Your task to perform on an android device: move a message to another label in the gmail app Image 0: 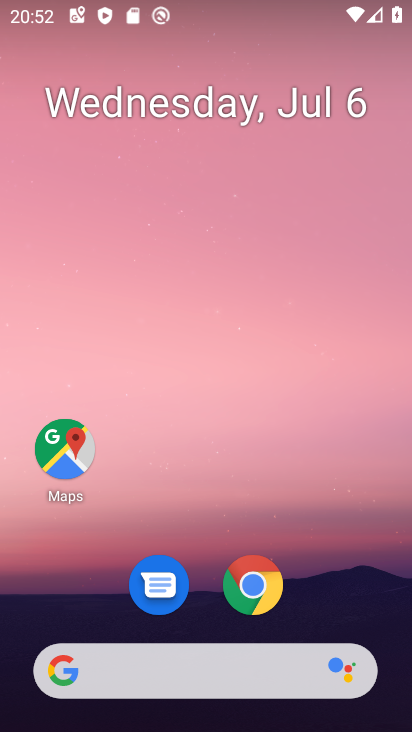
Step 0: drag from (219, 503) to (219, 1)
Your task to perform on an android device: move a message to another label in the gmail app Image 1: 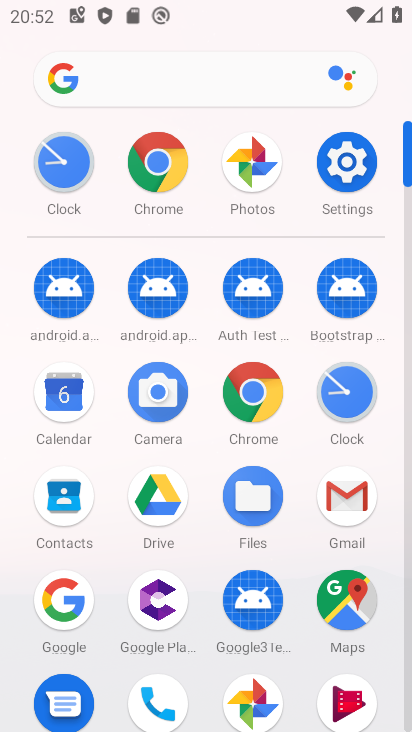
Step 1: click (349, 493)
Your task to perform on an android device: move a message to another label in the gmail app Image 2: 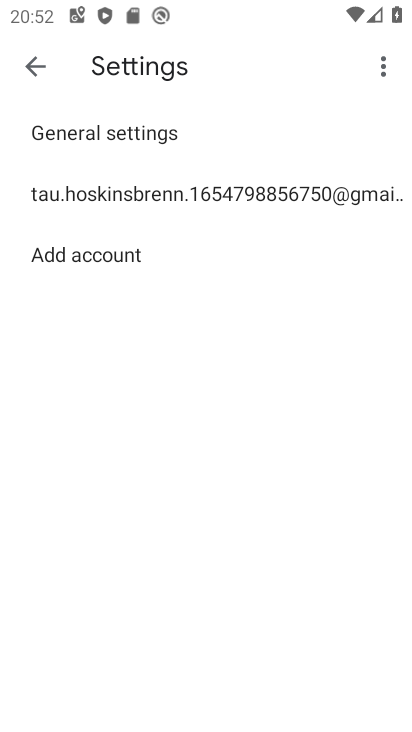
Step 2: click (33, 58)
Your task to perform on an android device: move a message to another label in the gmail app Image 3: 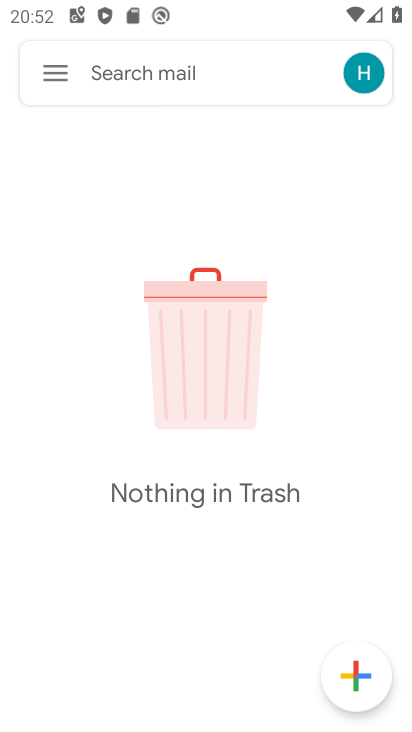
Step 3: click (51, 70)
Your task to perform on an android device: move a message to another label in the gmail app Image 4: 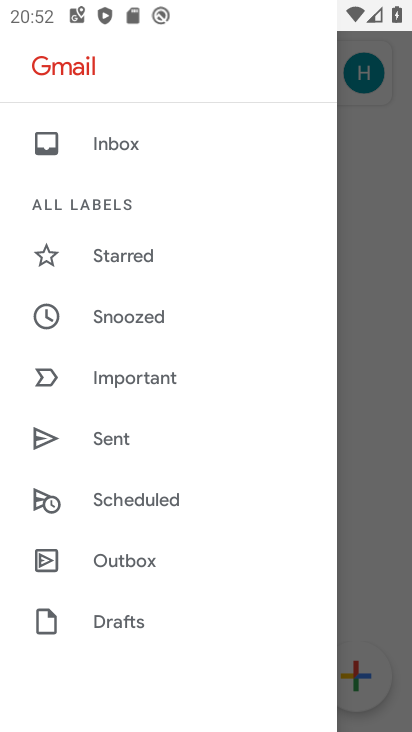
Step 4: drag from (159, 275) to (192, 483)
Your task to perform on an android device: move a message to another label in the gmail app Image 5: 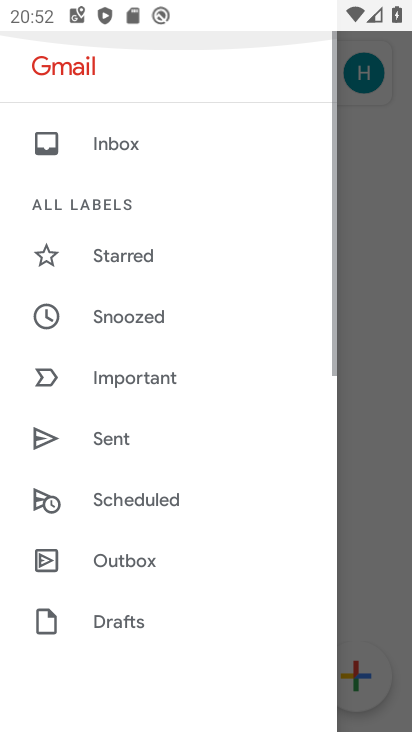
Step 5: drag from (169, 513) to (152, 190)
Your task to perform on an android device: move a message to another label in the gmail app Image 6: 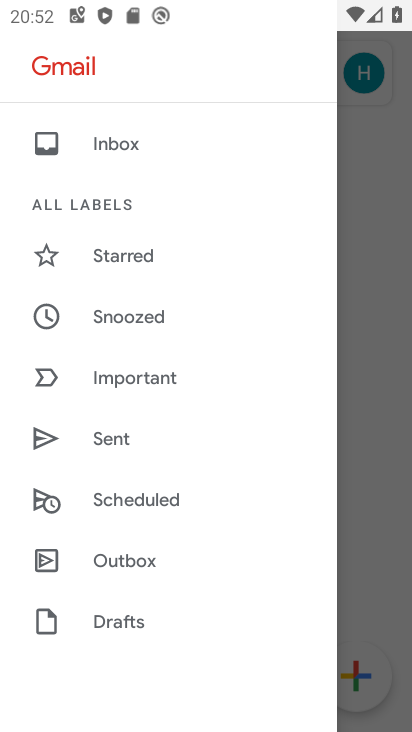
Step 6: drag from (109, 587) to (165, 16)
Your task to perform on an android device: move a message to another label in the gmail app Image 7: 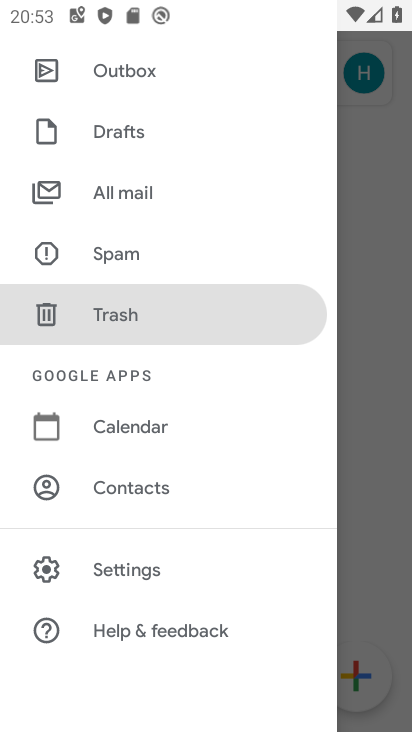
Step 7: click (129, 200)
Your task to perform on an android device: move a message to another label in the gmail app Image 8: 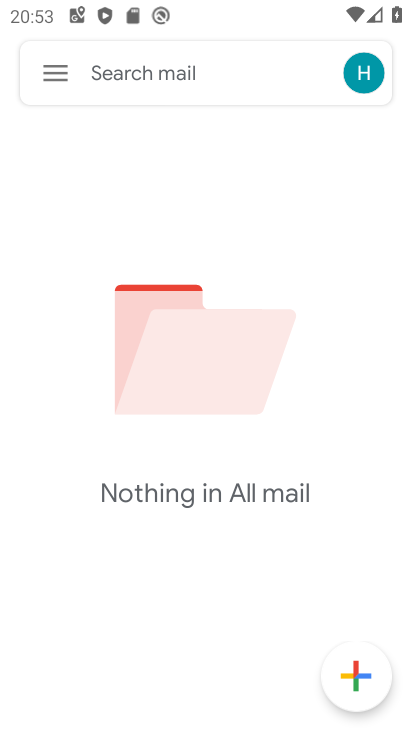
Step 8: task complete